Your task to perform on an android device: open app "ZOOM Cloud Meetings" Image 0: 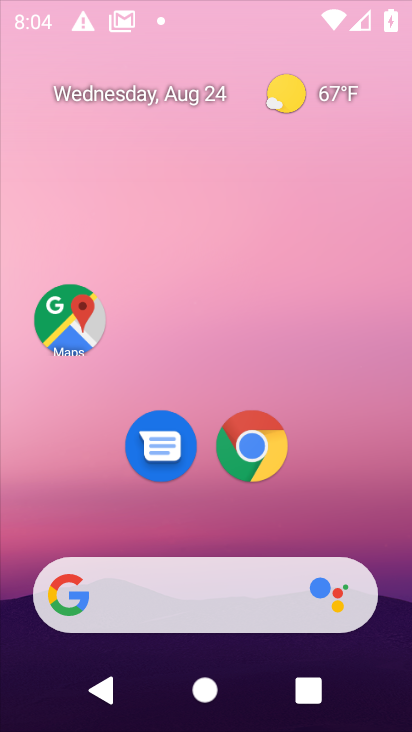
Step 0: press home button
Your task to perform on an android device: open app "ZOOM Cloud Meetings" Image 1: 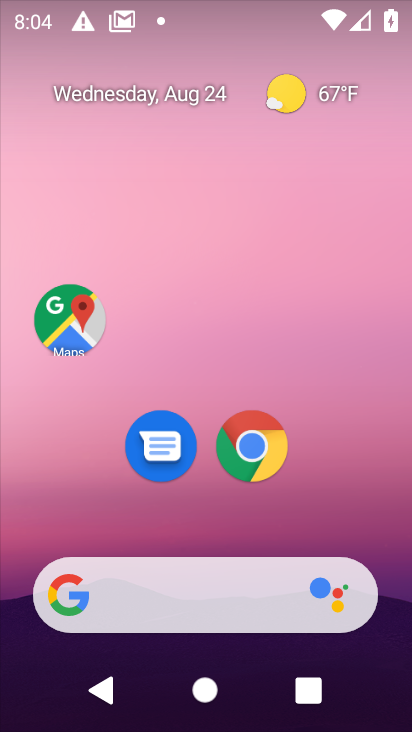
Step 1: drag from (208, 535) to (237, 21)
Your task to perform on an android device: open app "ZOOM Cloud Meetings" Image 2: 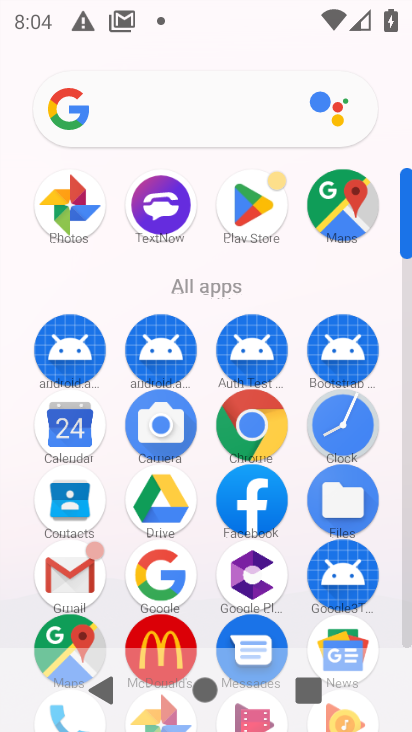
Step 2: click (247, 201)
Your task to perform on an android device: open app "ZOOM Cloud Meetings" Image 3: 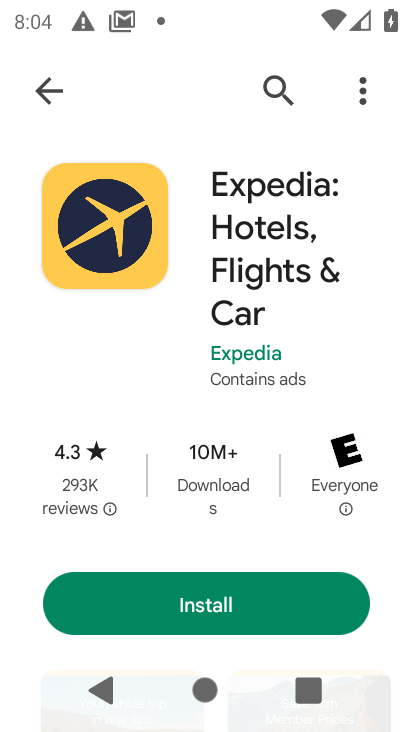
Step 3: click (265, 88)
Your task to perform on an android device: open app "ZOOM Cloud Meetings" Image 4: 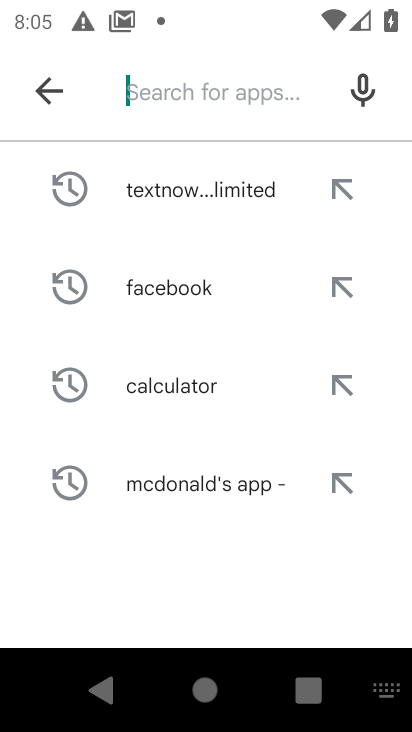
Step 4: type "ZOOM Cloud Meetings"
Your task to perform on an android device: open app "ZOOM Cloud Meetings" Image 5: 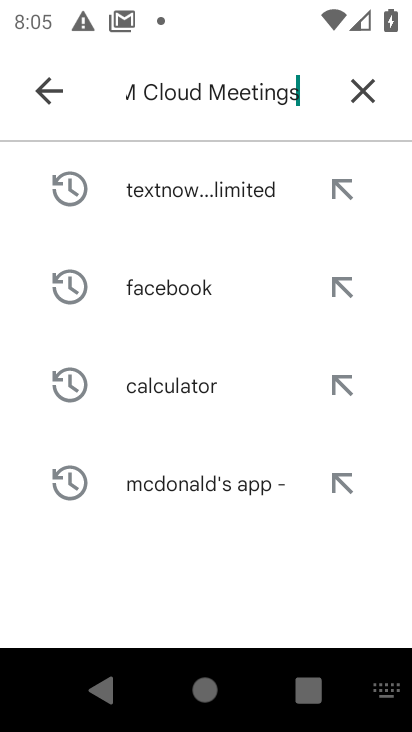
Step 5: type ""
Your task to perform on an android device: open app "ZOOM Cloud Meetings" Image 6: 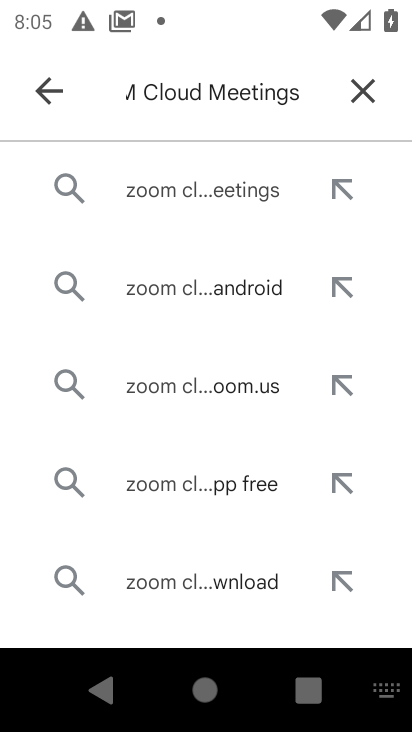
Step 6: click (248, 188)
Your task to perform on an android device: open app "ZOOM Cloud Meetings" Image 7: 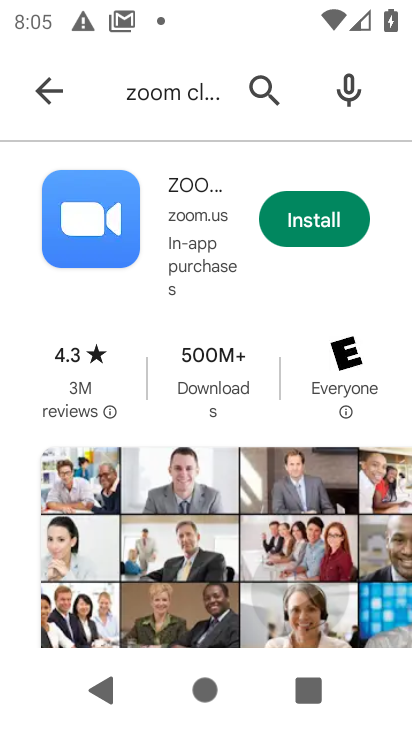
Step 7: task complete